Your task to perform on an android device: open a new tab in the chrome app Image 0: 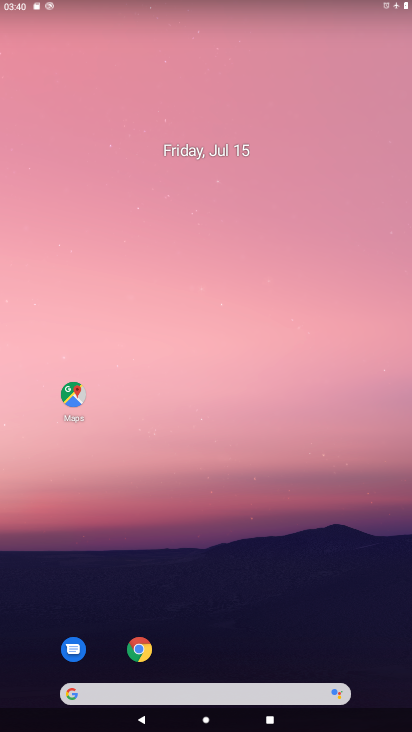
Step 0: click (138, 652)
Your task to perform on an android device: open a new tab in the chrome app Image 1: 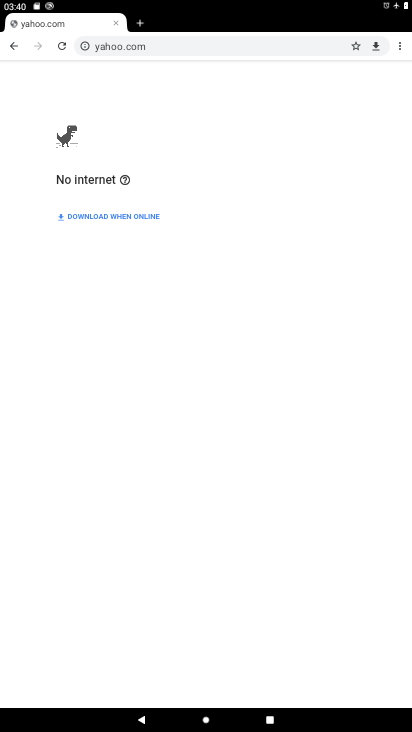
Step 1: click (397, 51)
Your task to perform on an android device: open a new tab in the chrome app Image 2: 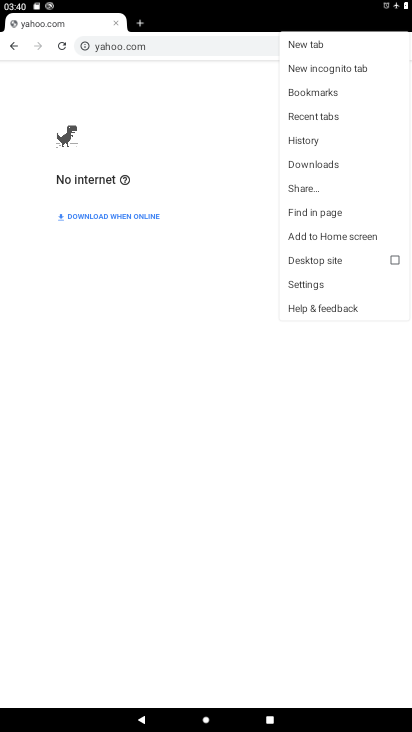
Step 2: click (299, 41)
Your task to perform on an android device: open a new tab in the chrome app Image 3: 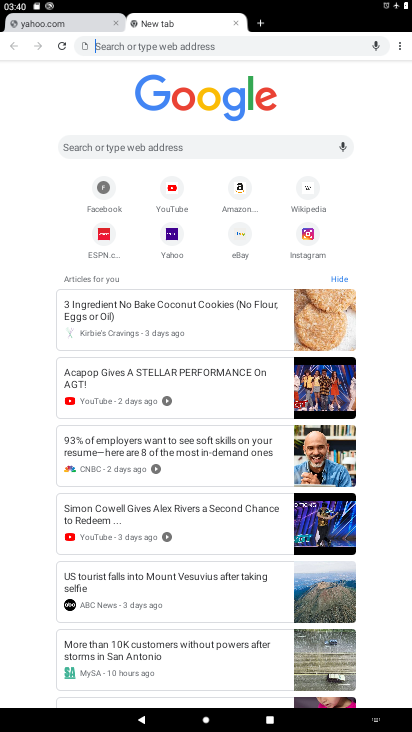
Step 3: task complete